Your task to perform on an android device: turn off sleep mode Image 0: 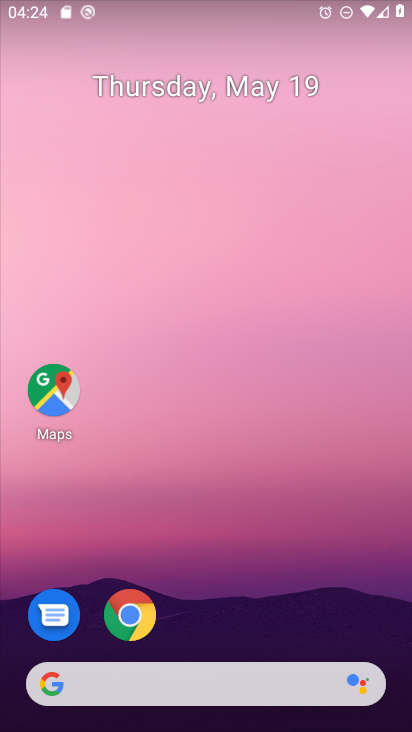
Step 0: drag from (326, 562) to (300, 156)
Your task to perform on an android device: turn off sleep mode Image 1: 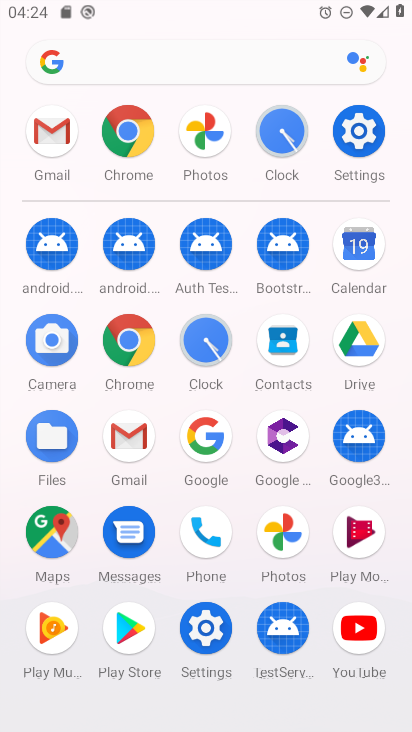
Step 1: click (370, 131)
Your task to perform on an android device: turn off sleep mode Image 2: 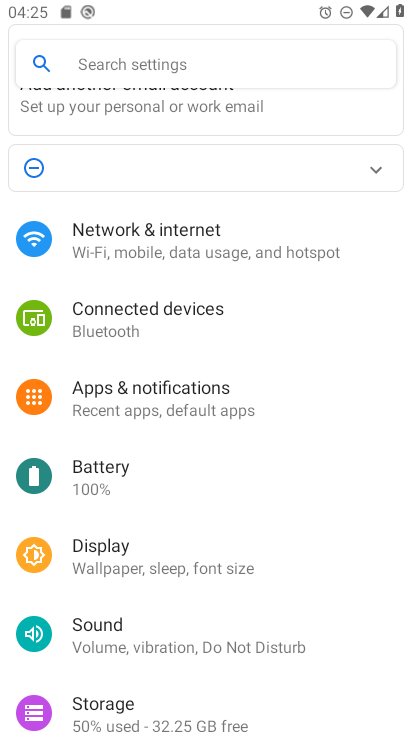
Step 2: click (267, 558)
Your task to perform on an android device: turn off sleep mode Image 3: 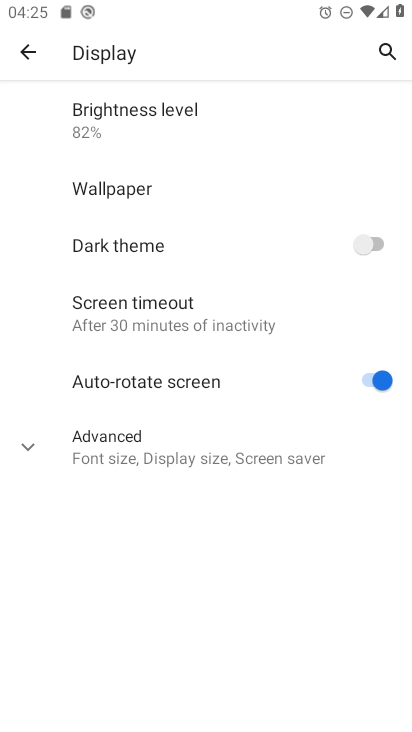
Step 3: task complete